Your task to perform on an android device: open sync settings in chrome Image 0: 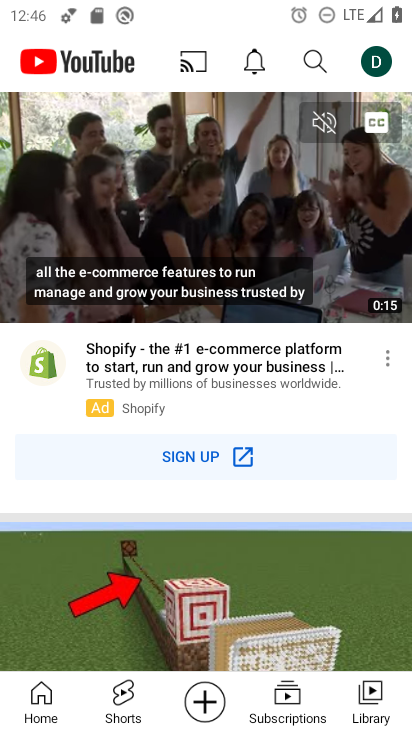
Step 0: press home button
Your task to perform on an android device: open sync settings in chrome Image 1: 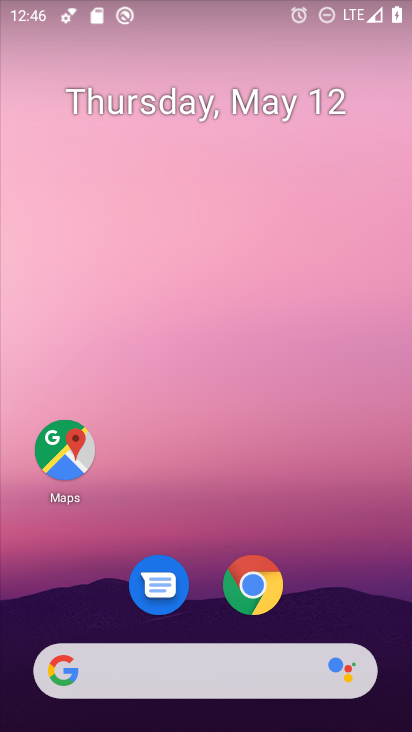
Step 1: click (258, 575)
Your task to perform on an android device: open sync settings in chrome Image 2: 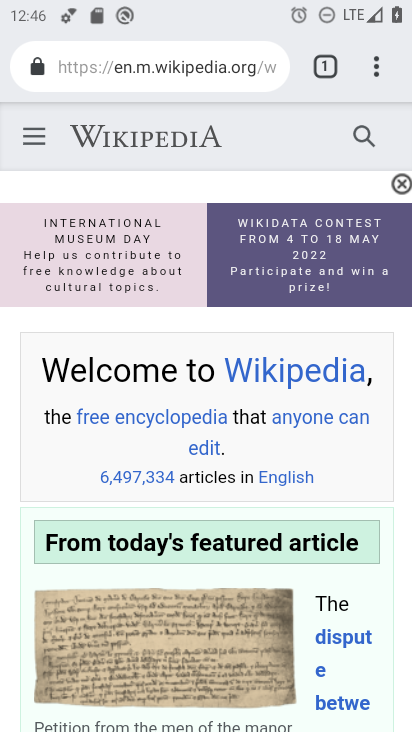
Step 2: click (374, 70)
Your task to perform on an android device: open sync settings in chrome Image 3: 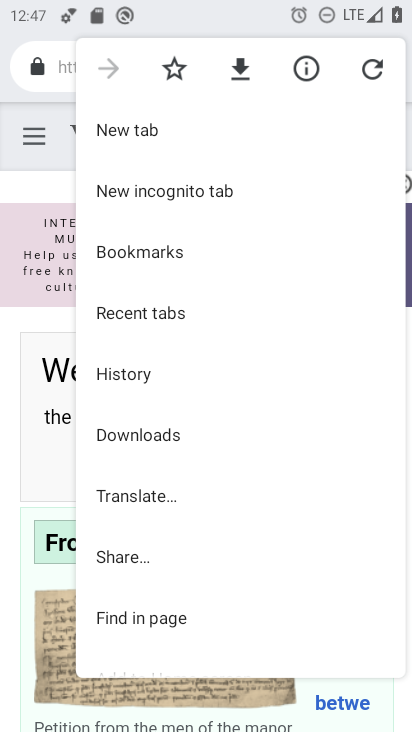
Step 3: drag from (212, 573) to (225, 251)
Your task to perform on an android device: open sync settings in chrome Image 4: 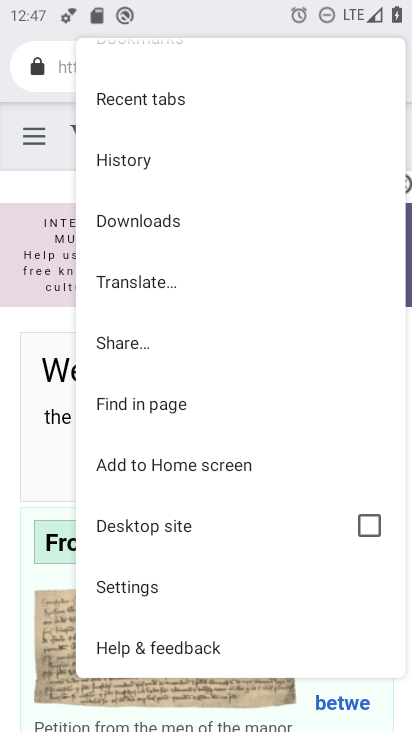
Step 4: click (184, 584)
Your task to perform on an android device: open sync settings in chrome Image 5: 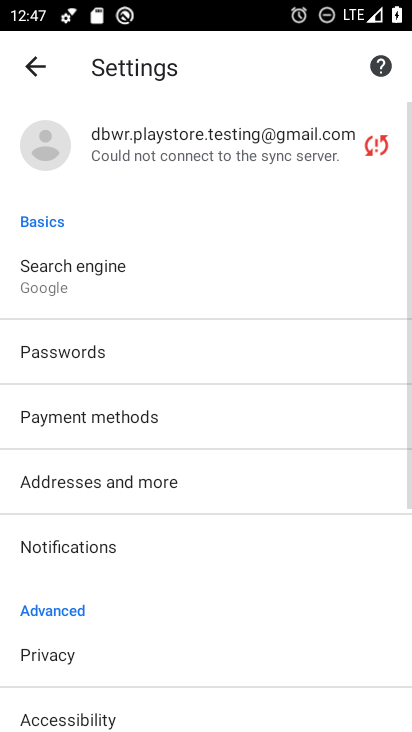
Step 5: click (175, 141)
Your task to perform on an android device: open sync settings in chrome Image 6: 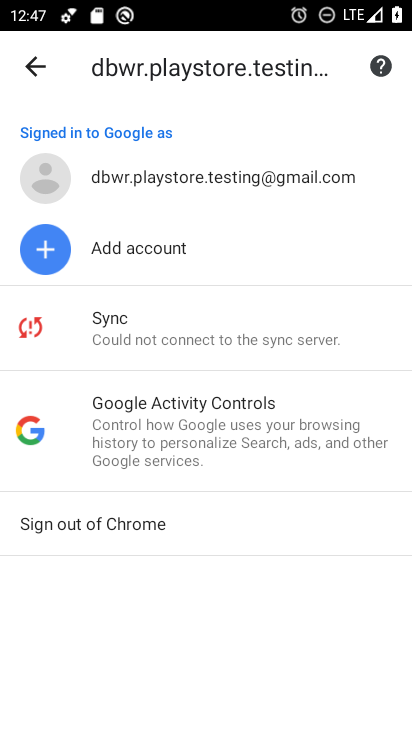
Step 6: click (164, 310)
Your task to perform on an android device: open sync settings in chrome Image 7: 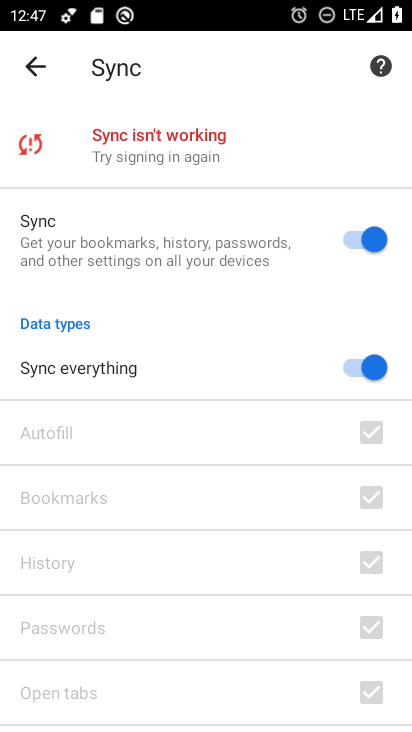
Step 7: task complete